Your task to perform on an android device: see creations saved in the google photos Image 0: 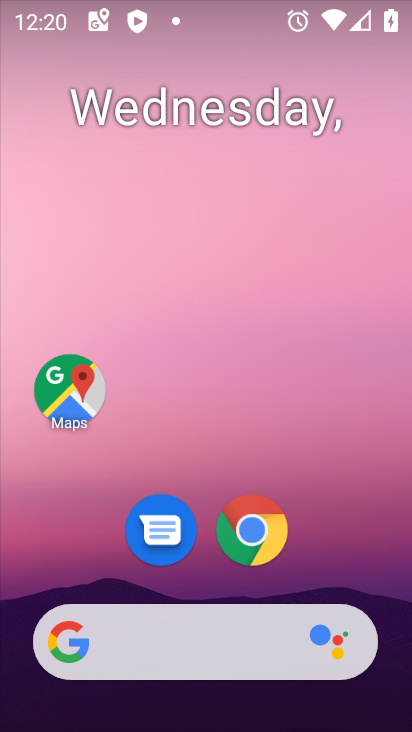
Step 0: drag from (182, 574) to (334, 218)
Your task to perform on an android device: see creations saved in the google photos Image 1: 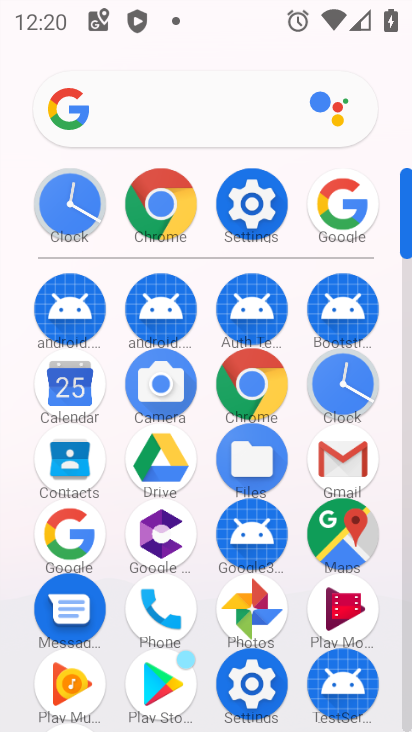
Step 1: click (247, 611)
Your task to perform on an android device: see creations saved in the google photos Image 2: 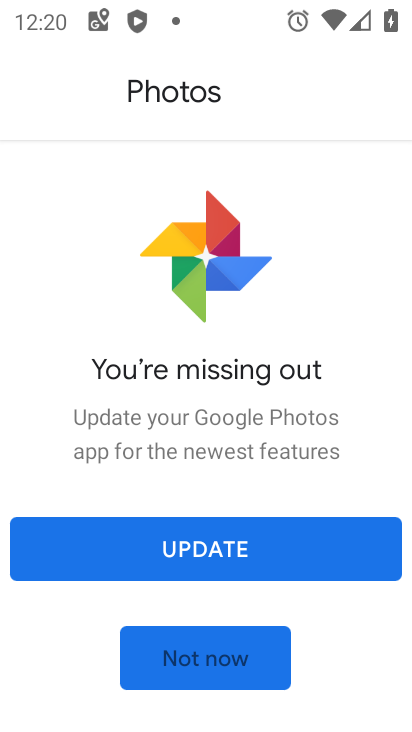
Step 2: click (182, 537)
Your task to perform on an android device: see creations saved in the google photos Image 3: 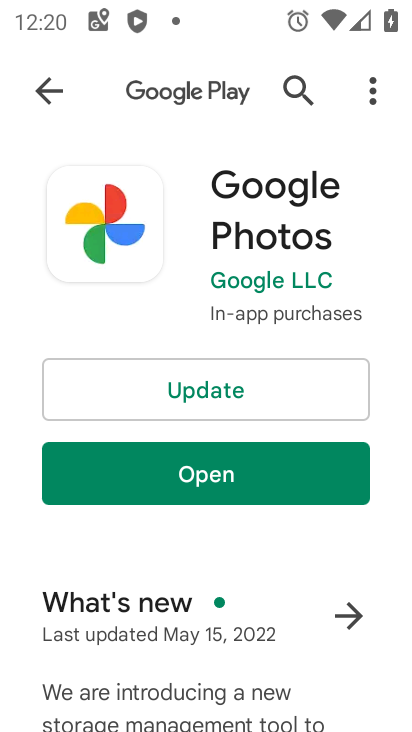
Step 3: click (195, 387)
Your task to perform on an android device: see creations saved in the google photos Image 4: 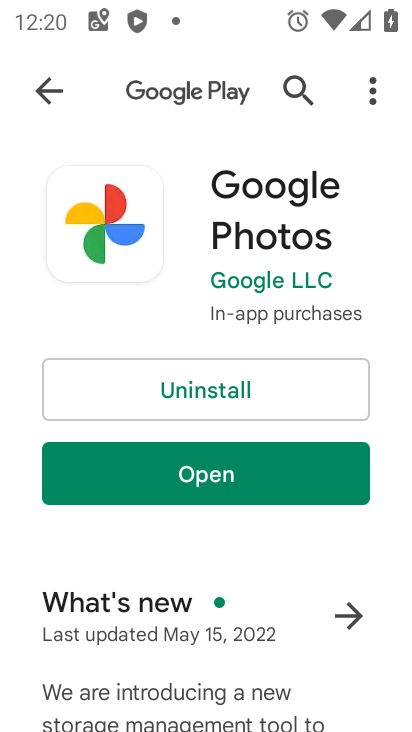
Step 4: click (237, 491)
Your task to perform on an android device: see creations saved in the google photos Image 5: 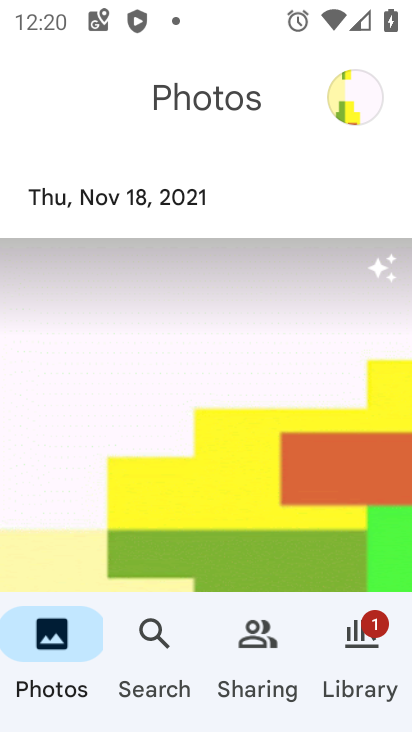
Step 5: click (136, 643)
Your task to perform on an android device: see creations saved in the google photos Image 6: 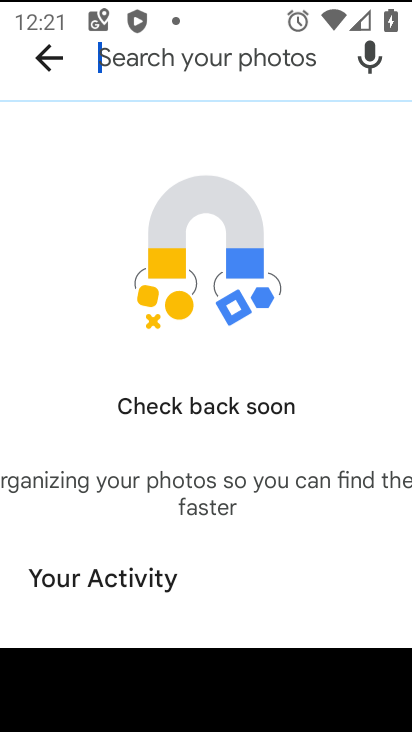
Step 6: type "creation"
Your task to perform on an android device: see creations saved in the google photos Image 7: 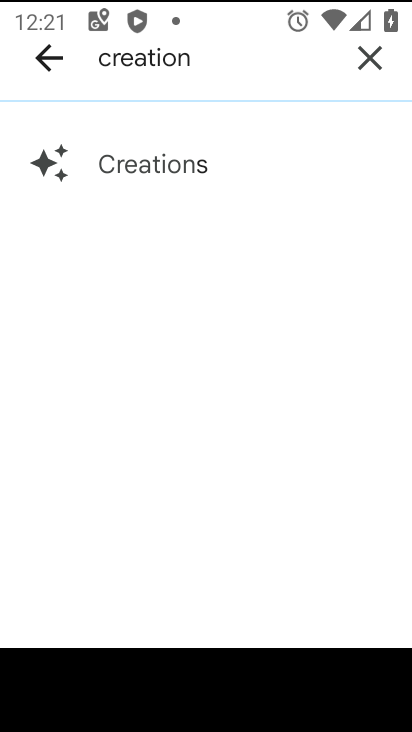
Step 7: click (145, 180)
Your task to perform on an android device: see creations saved in the google photos Image 8: 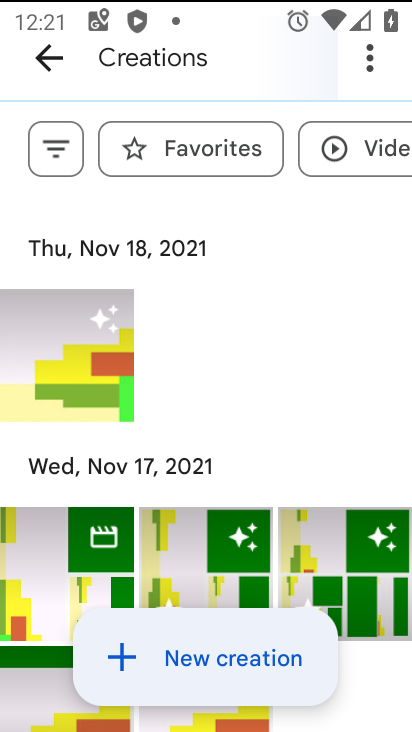
Step 8: task complete